Your task to perform on an android device: turn off javascript in the chrome app Image 0: 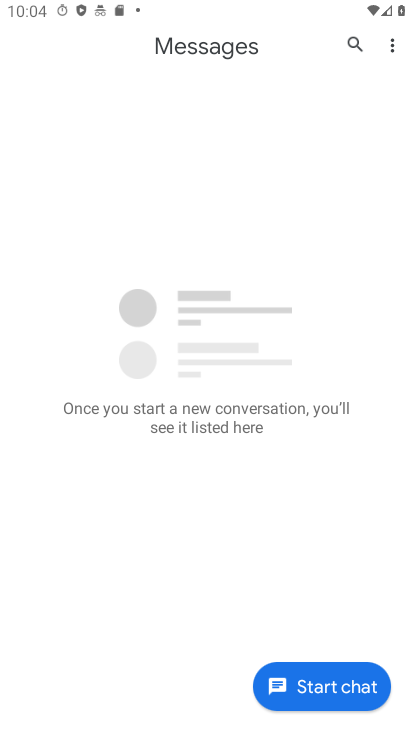
Step 0: press back button
Your task to perform on an android device: turn off javascript in the chrome app Image 1: 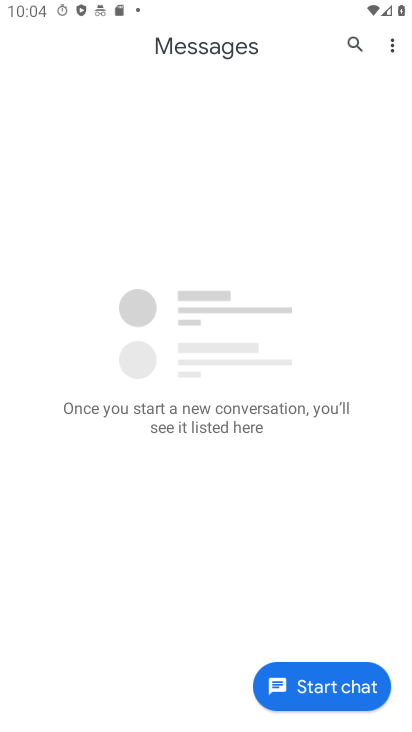
Step 1: press back button
Your task to perform on an android device: turn off javascript in the chrome app Image 2: 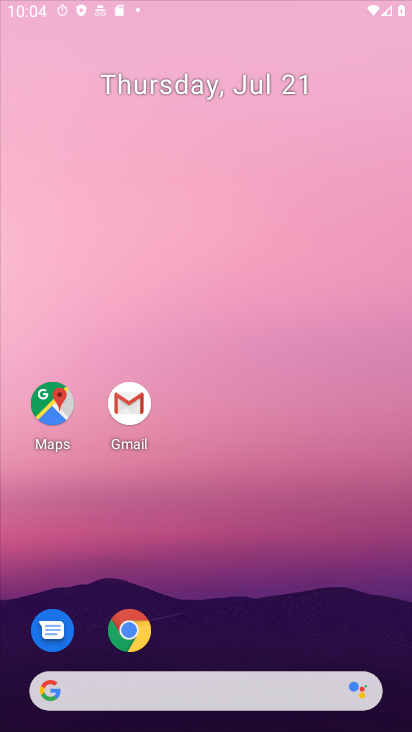
Step 2: press back button
Your task to perform on an android device: turn off javascript in the chrome app Image 3: 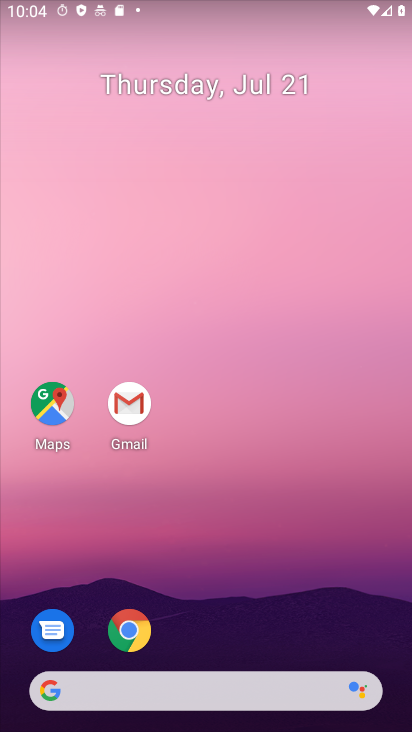
Step 3: drag from (234, 693) to (244, 293)
Your task to perform on an android device: turn off javascript in the chrome app Image 4: 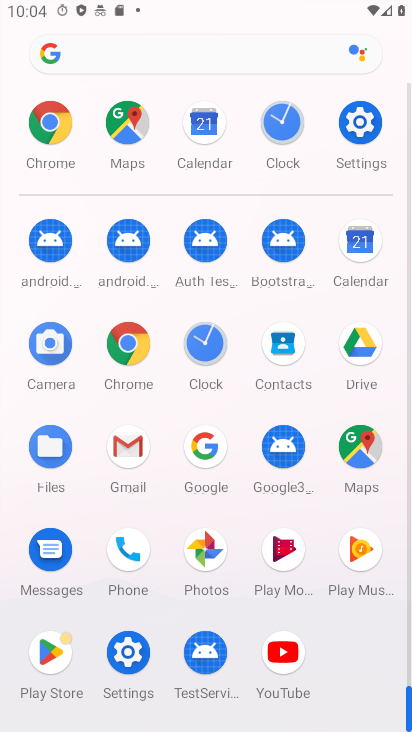
Step 4: drag from (232, 608) to (206, 313)
Your task to perform on an android device: turn off javascript in the chrome app Image 5: 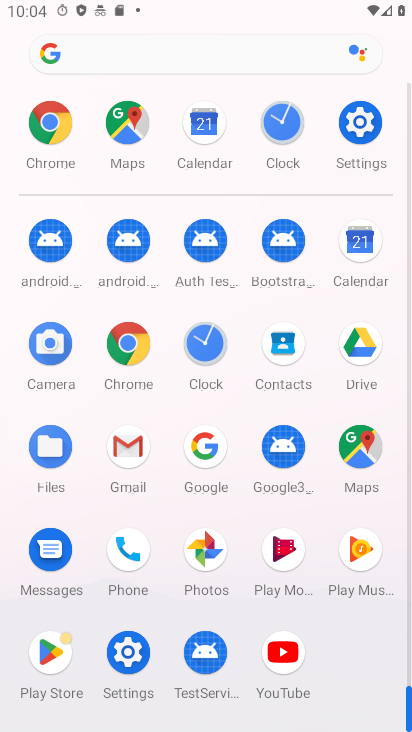
Step 5: click (121, 327)
Your task to perform on an android device: turn off javascript in the chrome app Image 6: 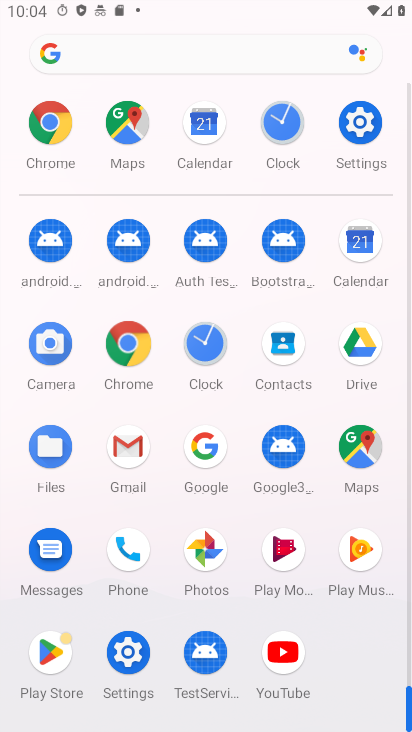
Step 6: click (128, 330)
Your task to perform on an android device: turn off javascript in the chrome app Image 7: 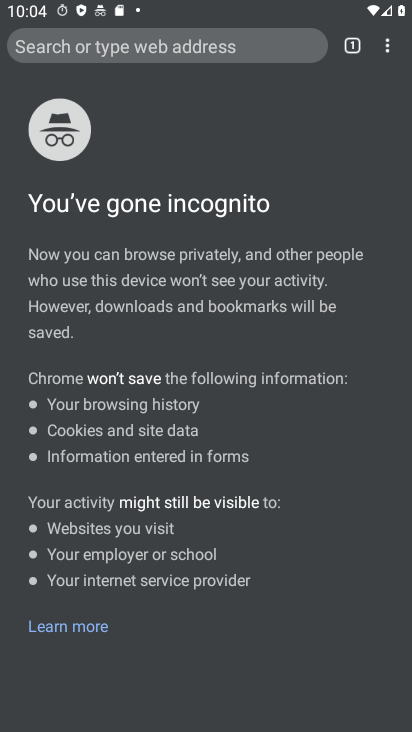
Step 7: drag from (382, 40) to (235, 345)
Your task to perform on an android device: turn off javascript in the chrome app Image 8: 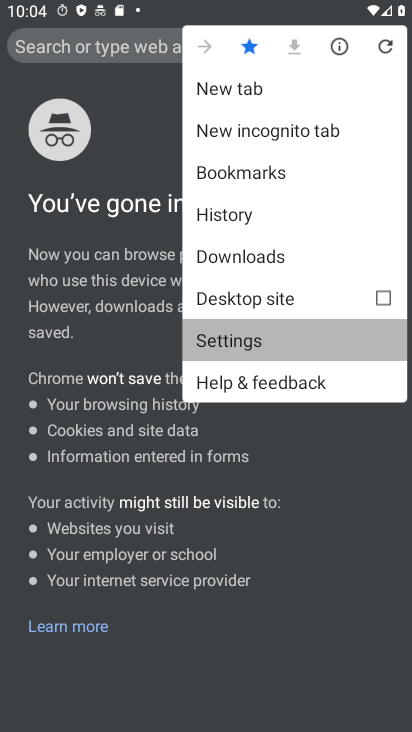
Step 8: click (235, 345)
Your task to perform on an android device: turn off javascript in the chrome app Image 9: 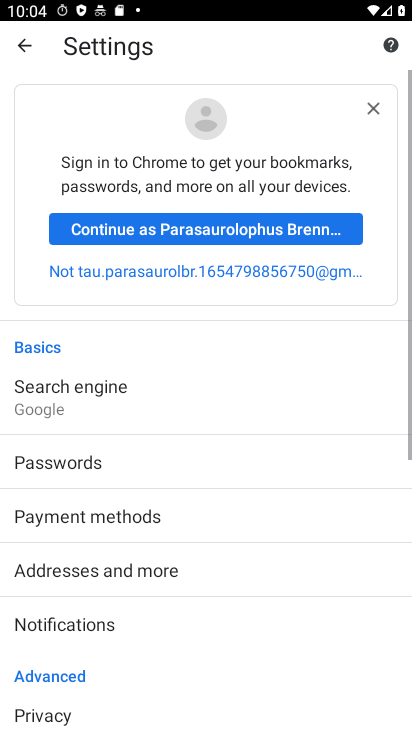
Step 9: drag from (89, 593) to (172, 208)
Your task to perform on an android device: turn off javascript in the chrome app Image 10: 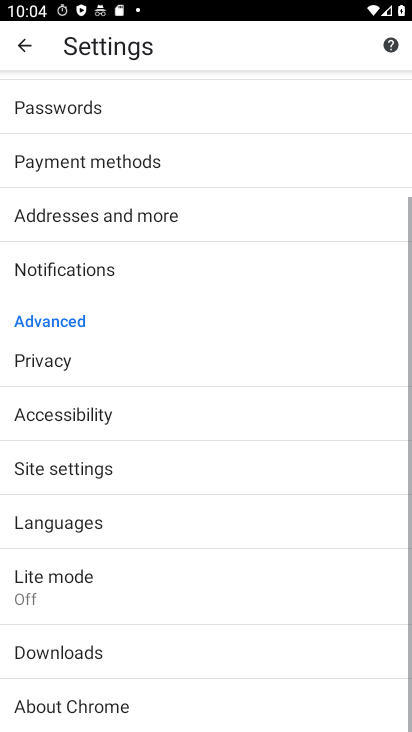
Step 10: click (174, 131)
Your task to perform on an android device: turn off javascript in the chrome app Image 11: 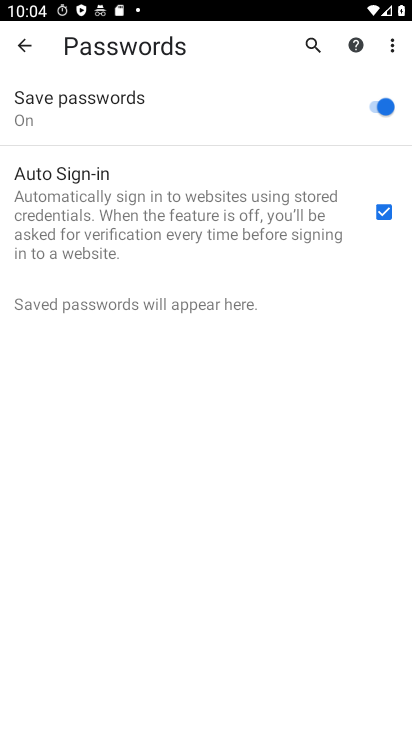
Step 11: click (31, 39)
Your task to perform on an android device: turn off javascript in the chrome app Image 12: 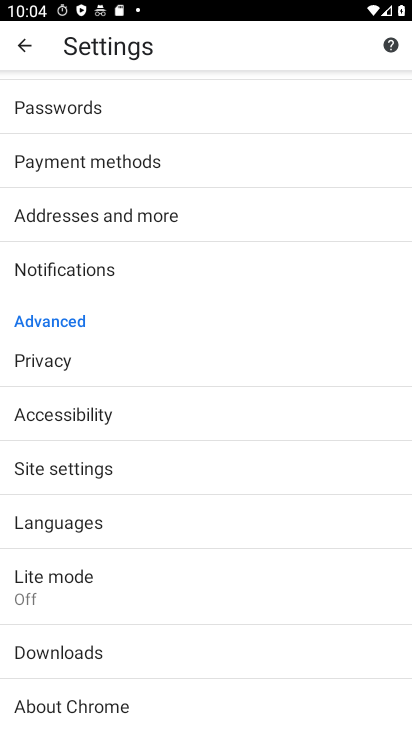
Step 12: click (54, 475)
Your task to perform on an android device: turn off javascript in the chrome app Image 13: 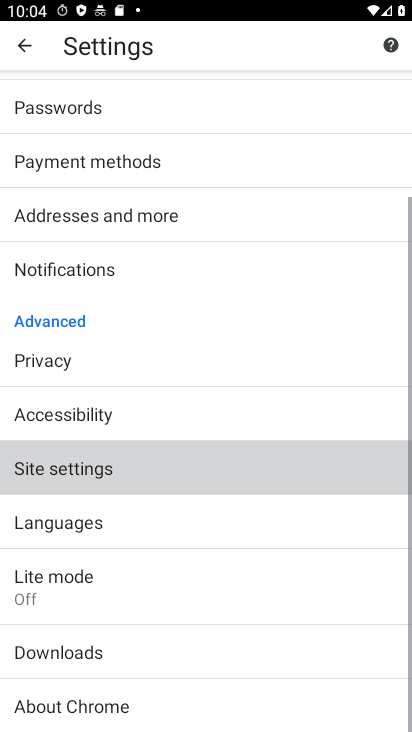
Step 13: click (75, 472)
Your task to perform on an android device: turn off javascript in the chrome app Image 14: 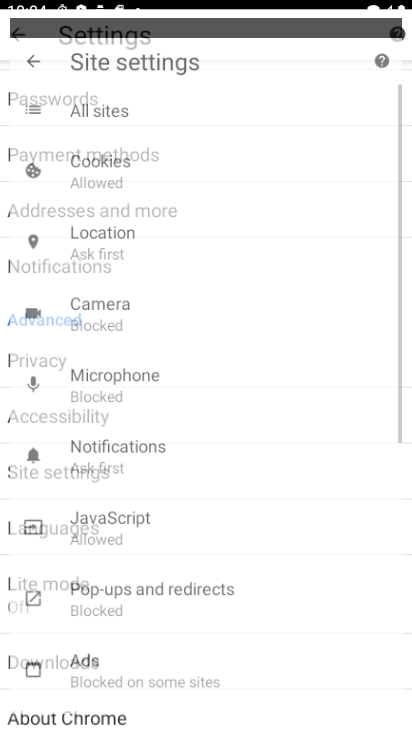
Step 14: click (82, 474)
Your task to perform on an android device: turn off javascript in the chrome app Image 15: 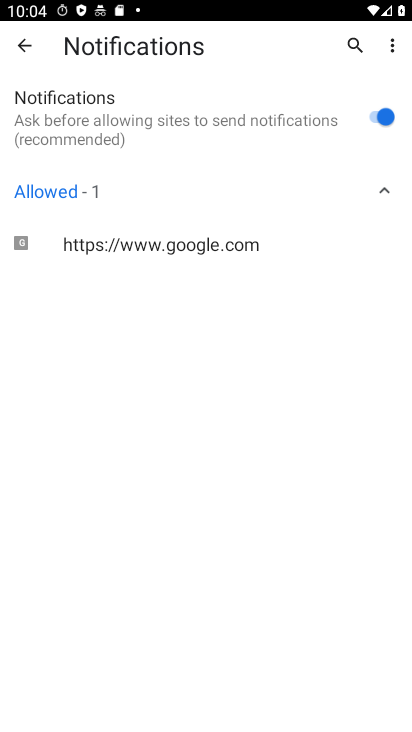
Step 15: click (66, 542)
Your task to perform on an android device: turn off javascript in the chrome app Image 16: 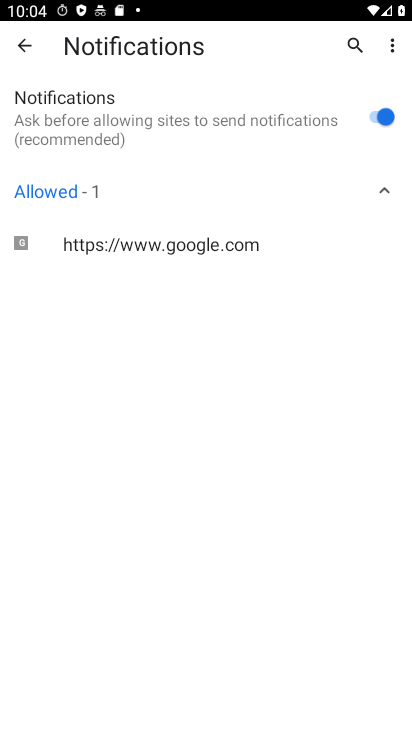
Step 16: click (72, 539)
Your task to perform on an android device: turn off javascript in the chrome app Image 17: 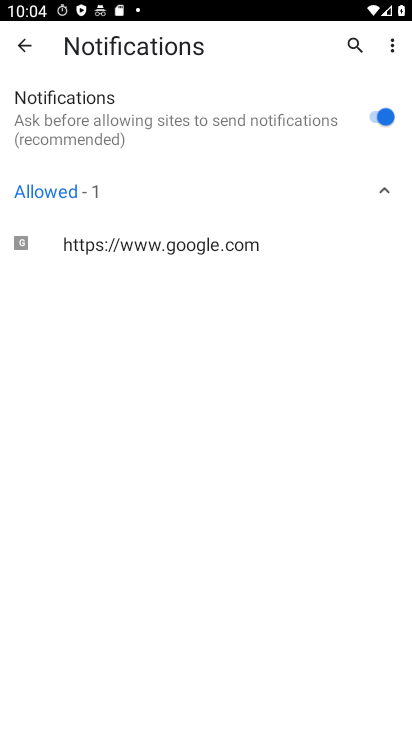
Step 17: click (72, 539)
Your task to perform on an android device: turn off javascript in the chrome app Image 18: 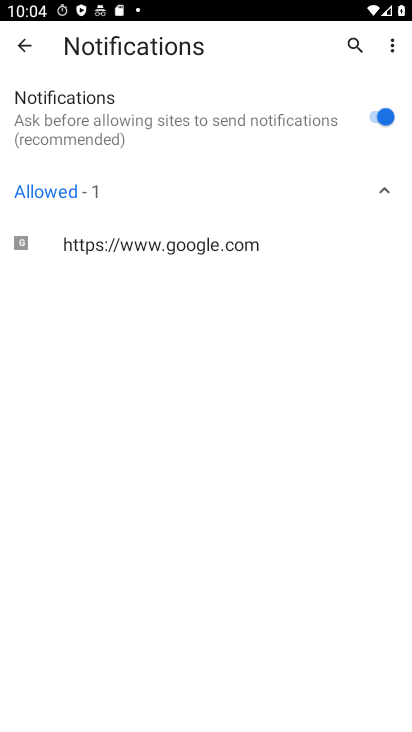
Step 18: click (384, 106)
Your task to perform on an android device: turn off javascript in the chrome app Image 19: 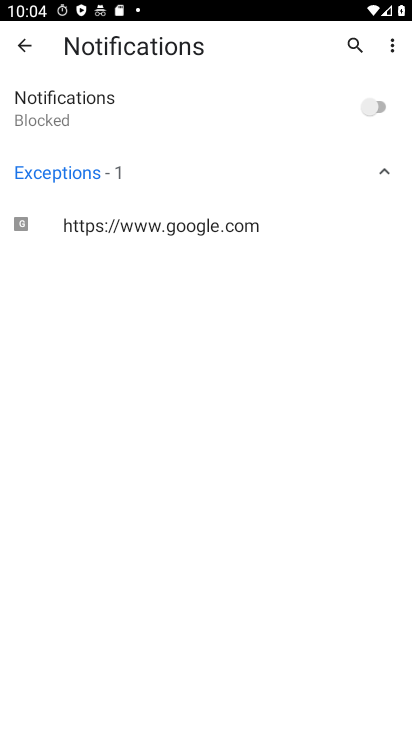
Step 19: task complete